Your task to perform on an android device: change alarm snooze length Image 0: 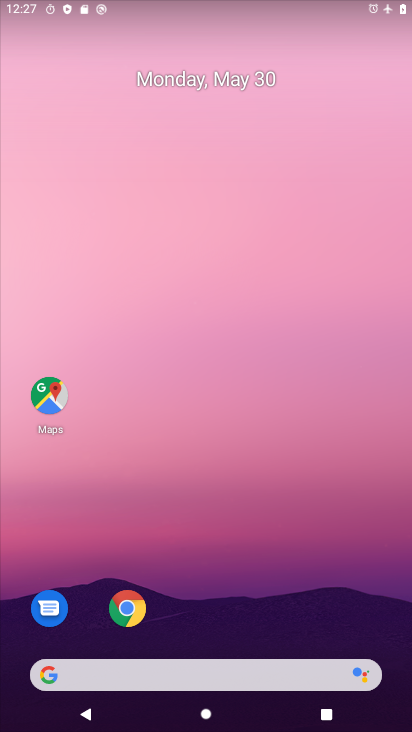
Step 0: drag from (221, 646) to (131, 4)
Your task to perform on an android device: change alarm snooze length Image 1: 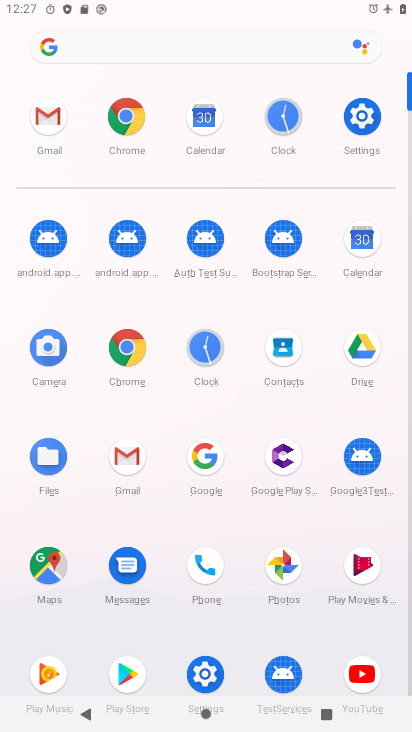
Step 1: click (288, 141)
Your task to perform on an android device: change alarm snooze length Image 2: 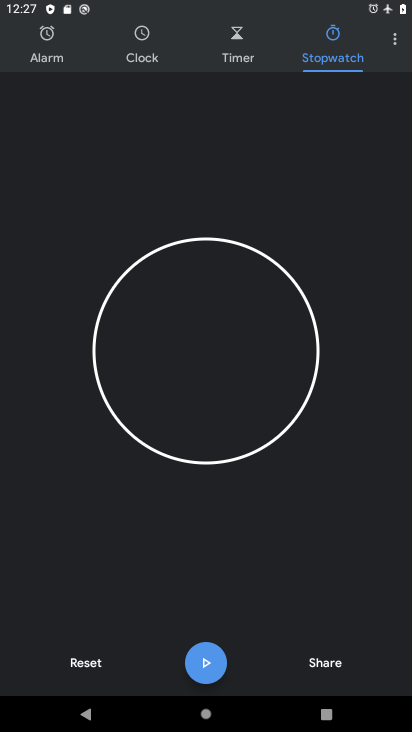
Step 2: click (393, 40)
Your task to perform on an android device: change alarm snooze length Image 3: 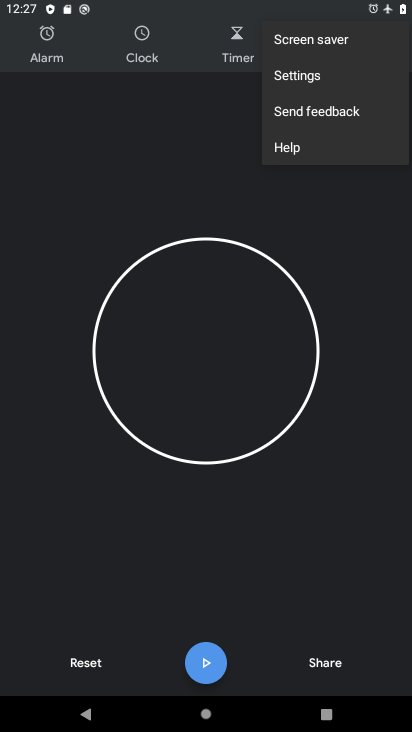
Step 3: click (323, 78)
Your task to perform on an android device: change alarm snooze length Image 4: 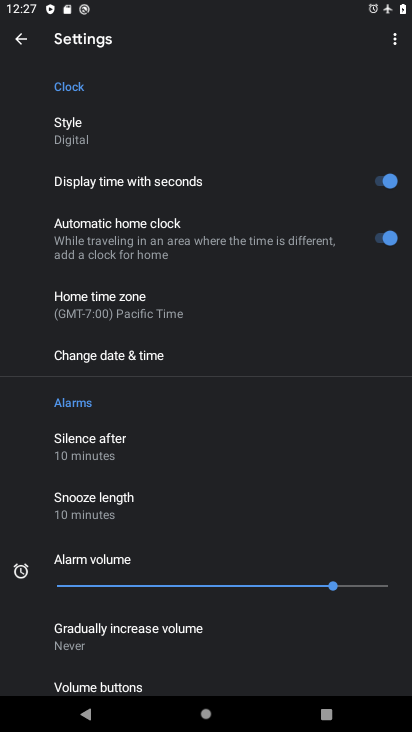
Step 4: click (119, 498)
Your task to perform on an android device: change alarm snooze length Image 5: 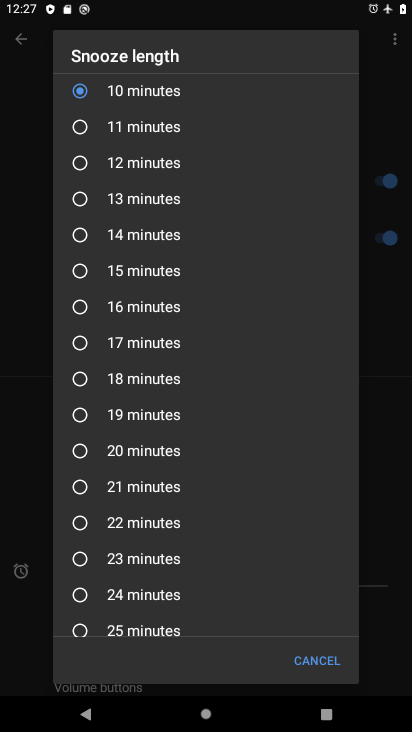
Step 5: click (67, 132)
Your task to perform on an android device: change alarm snooze length Image 6: 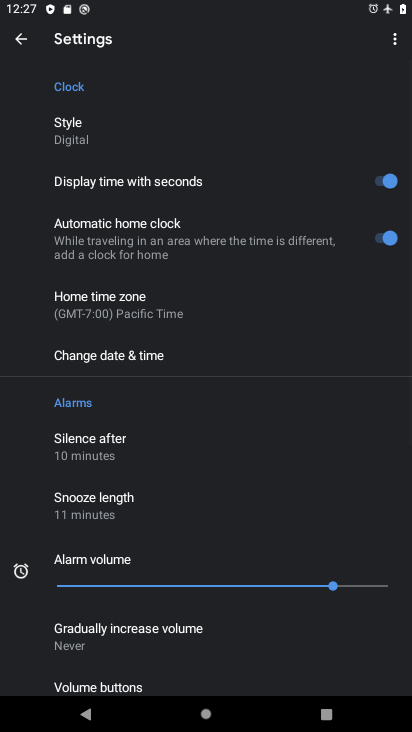
Step 6: task complete